Your task to perform on an android device: Add "panasonic triple a" to the cart on amazon.com Image 0: 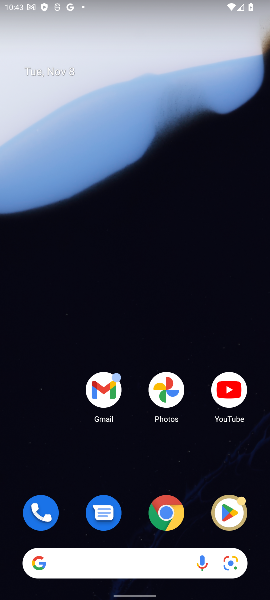
Step 0: click (167, 512)
Your task to perform on an android device: Add "panasonic triple a" to the cart on amazon.com Image 1: 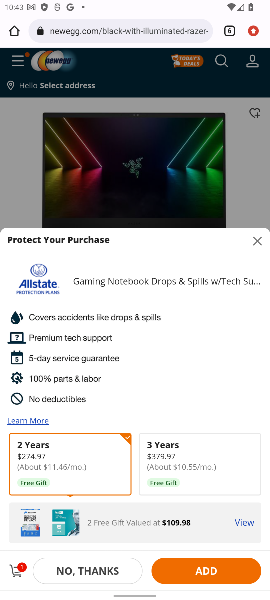
Step 1: click (229, 29)
Your task to perform on an android device: Add "panasonic triple a" to the cart on amazon.com Image 2: 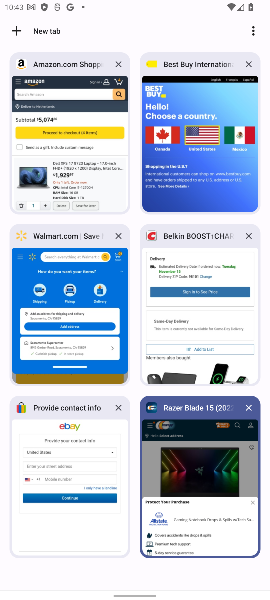
Step 2: click (56, 123)
Your task to perform on an android device: Add "panasonic triple a" to the cart on amazon.com Image 3: 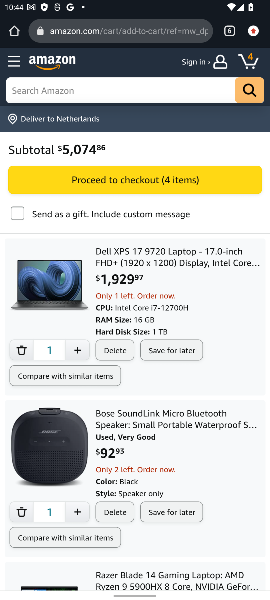
Step 3: click (43, 82)
Your task to perform on an android device: Add "panasonic triple a" to the cart on amazon.com Image 4: 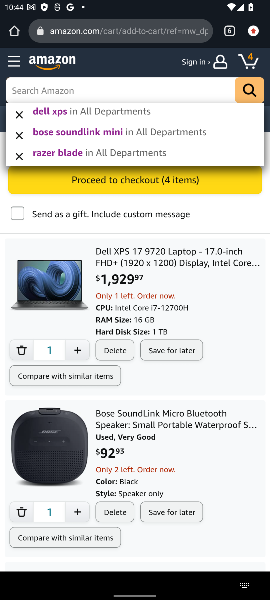
Step 4: type "panasonic triple a"
Your task to perform on an android device: Add "panasonic triple a" to the cart on amazon.com Image 5: 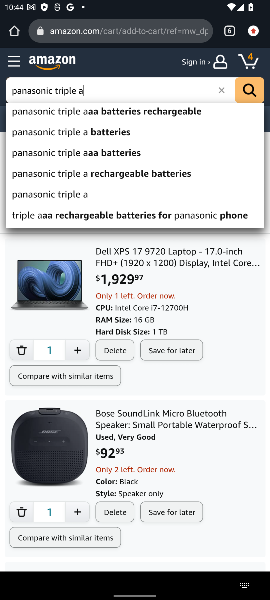
Step 5: click (128, 107)
Your task to perform on an android device: Add "panasonic triple a" to the cart on amazon.com Image 6: 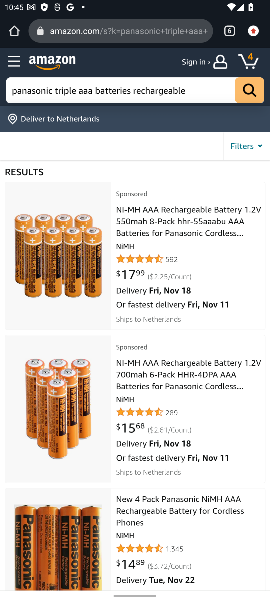
Step 6: click (188, 510)
Your task to perform on an android device: Add "panasonic triple a" to the cart on amazon.com Image 7: 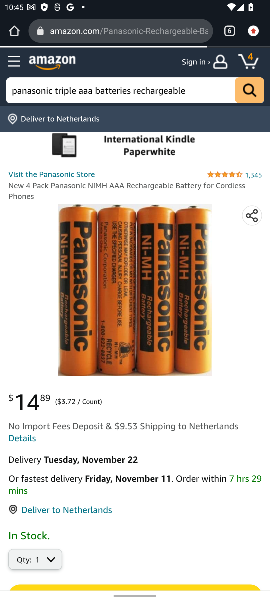
Step 7: drag from (147, 533) to (142, 129)
Your task to perform on an android device: Add "panasonic triple a" to the cart on amazon.com Image 8: 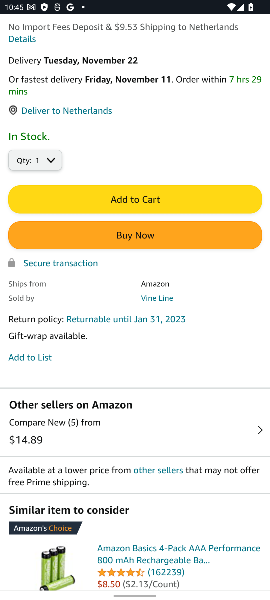
Step 8: click (135, 203)
Your task to perform on an android device: Add "panasonic triple a" to the cart on amazon.com Image 9: 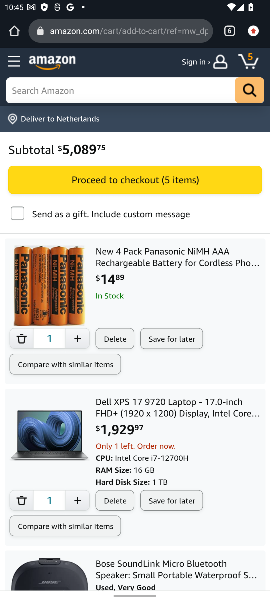
Step 9: task complete